Your task to perform on an android device: set an alarm Image 0: 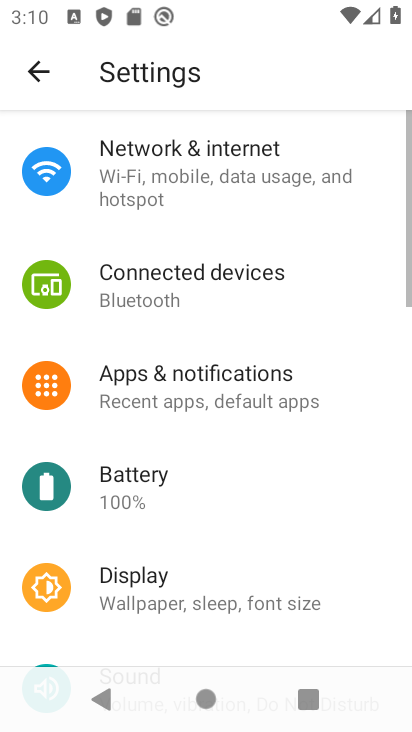
Step 0: click (195, 149)
Your task to perform on an android device: set an alarm Image 1: 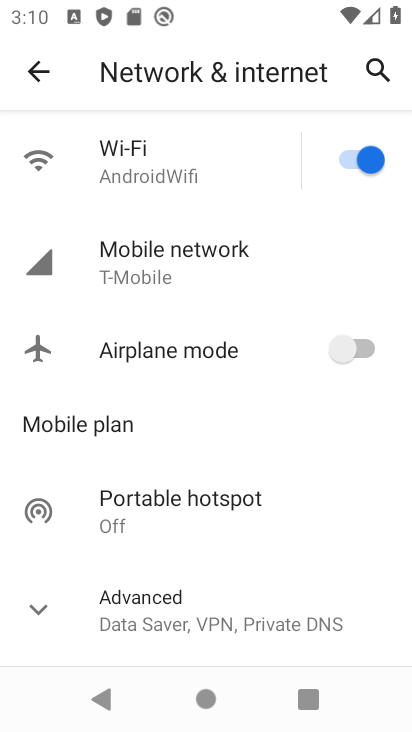
Step 1: drag from (226, 509) to (179, 197)
Your task to perform on an android device: set an alarm Image 2: 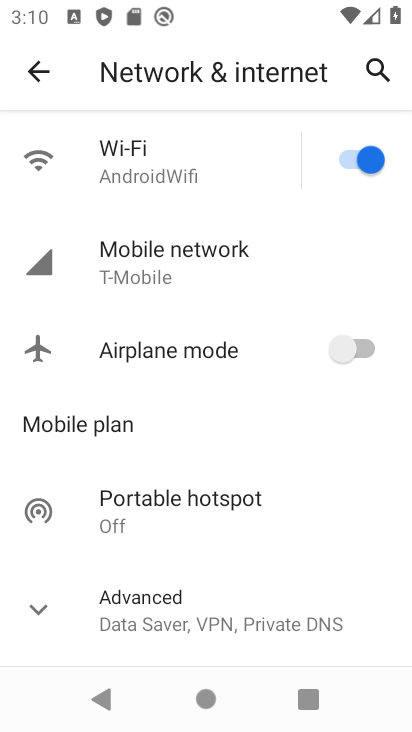
Step 2: click (138, 175)
Your task to perform on an android device: set an alarm Image 3: 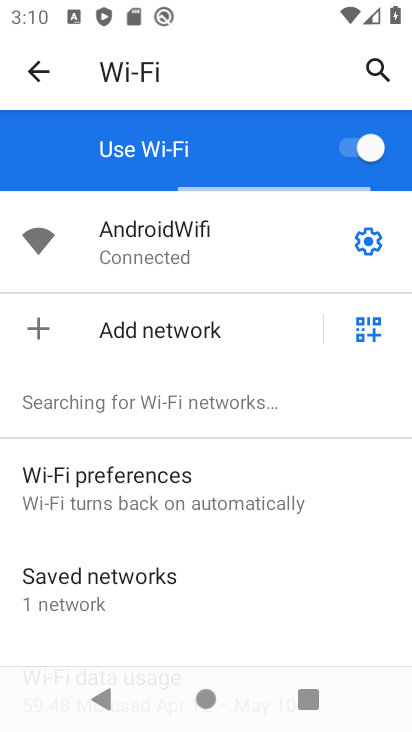
Step 3: task complete